Your task to perform on an android device: turn off priority inbox in the gmail app Image 0: 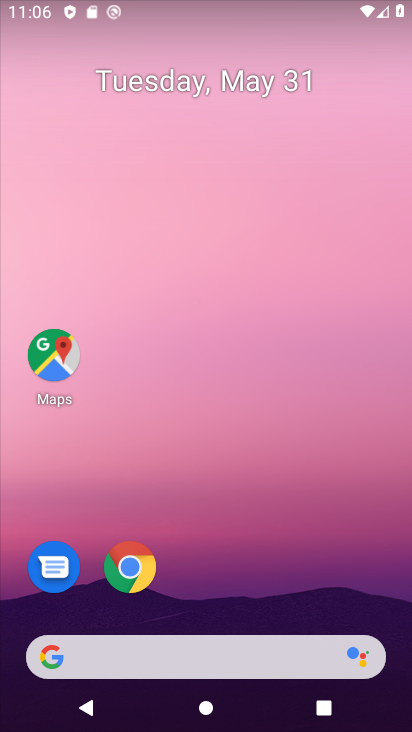
Step 0: drag from (333, 602) to (351, 124)
Your task to perform on an android device: turn off priority inbox in the gmail app Image 1: 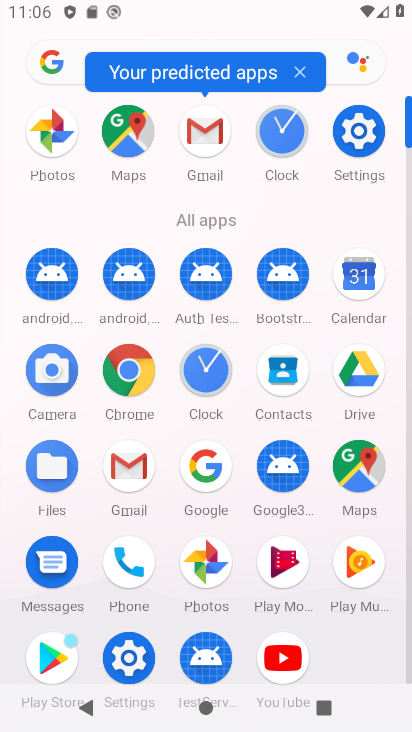
Step 1: click (139, 469)
Your task to perform on an android device: turn off priority inbox in the gmail app Image 2: 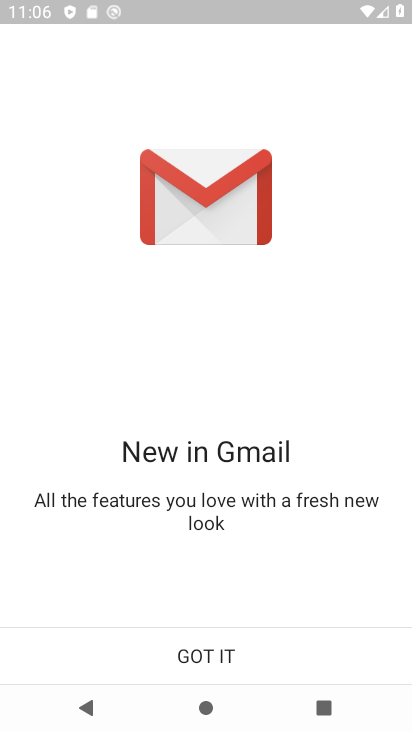
Step 2: click (201, 659)
Your task to perform on an android device: turn off priority inbox in the gmail app Image 3: 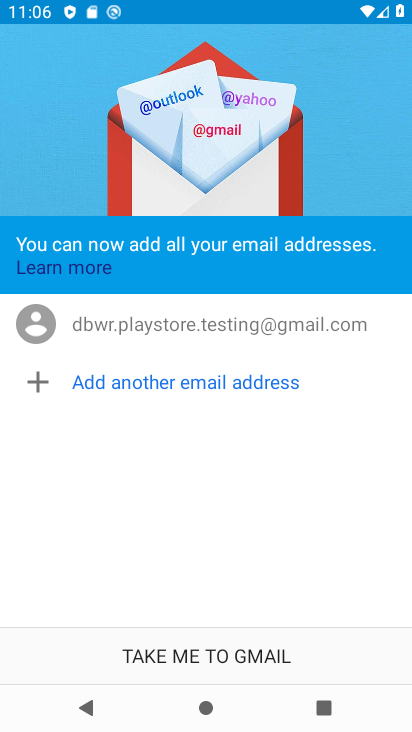
Step 3: click (231, 657)
Your task to perform on an android device: turn off priority inbox in the gmail app Image 4: 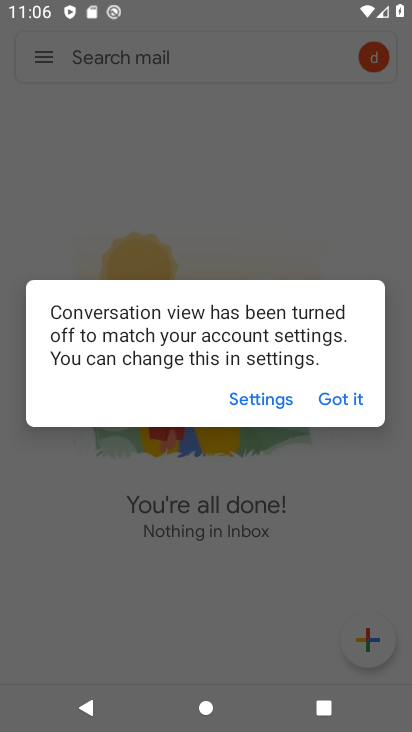
Step 4: click (351, 399)
Your task to perform on an android device: turn off priority inbox in the gmail app Image 5: 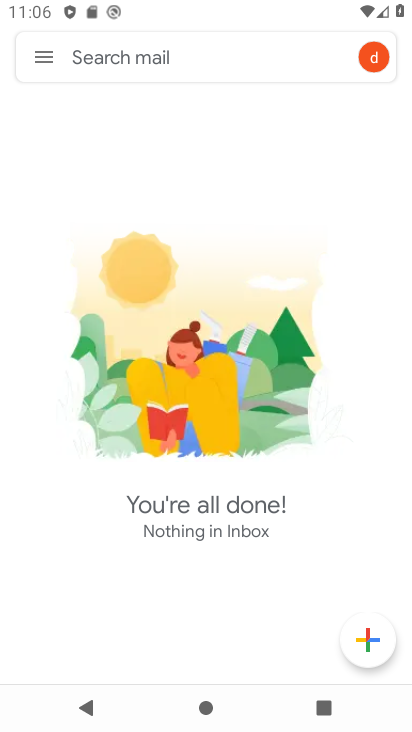
Step 5: click (35, 57)
Your task to perform on an android device: turn off priority inbox in the gmail app Image 6: 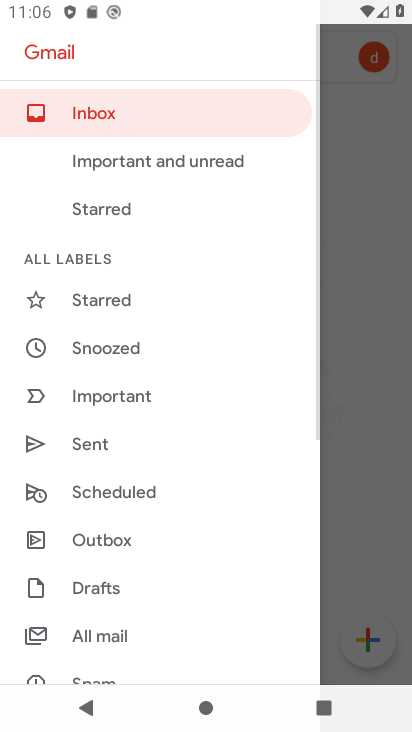
Step 6: drag from (209, 507) to (228, 363)
Your task to perform on an android device: turn off priority inbox in the gmail app Image 7: 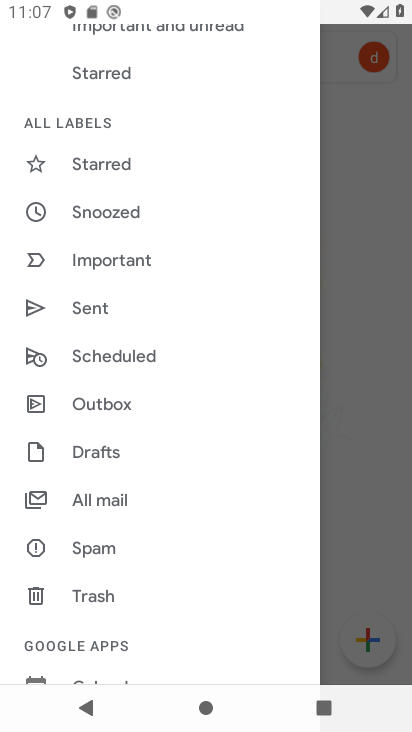
Step 7: drag from (253, 521) to (255, 343)
Your task to perform on an android device: turn off priority inbox in the gmail app Image 8: 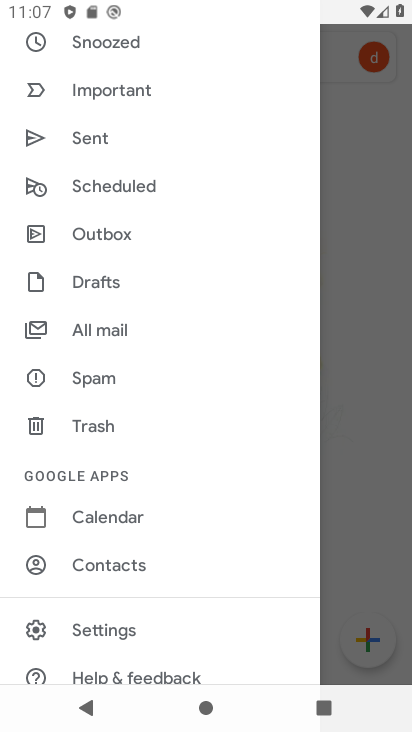
Step 8: drag from (252, 569) to (261, 368)
Your task to perform on an android device: turn off priority inbox in the gmail app Image 9: 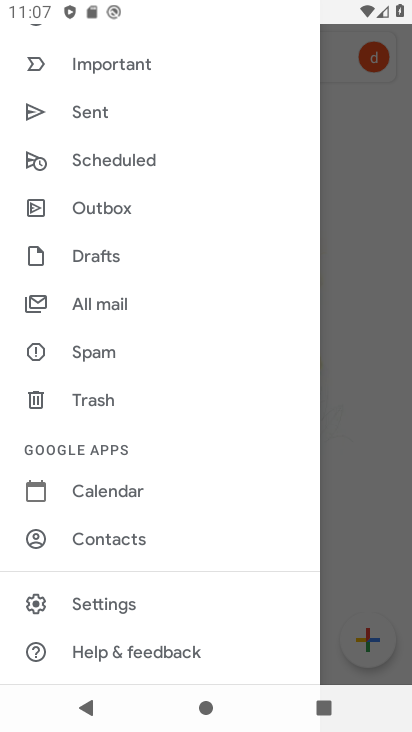
Step 9: click (142, 605)
Your task to perform on an android device: turn off priority inbox in the gmail app Image 10: 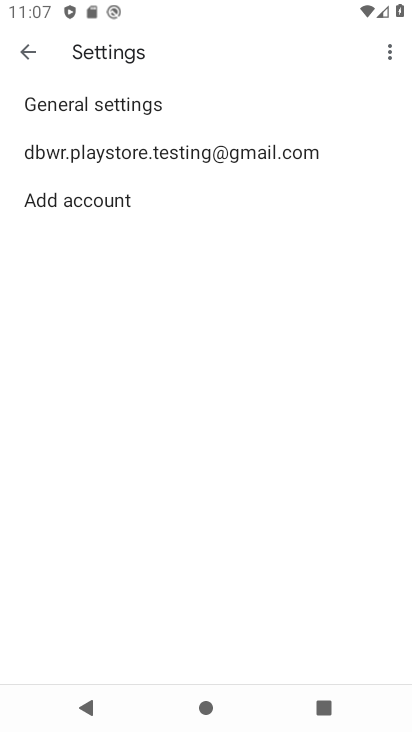
Step 10: click (231, 159)
Your task to perform on an android device: turn off priority inbox in the gmail app Image 11: 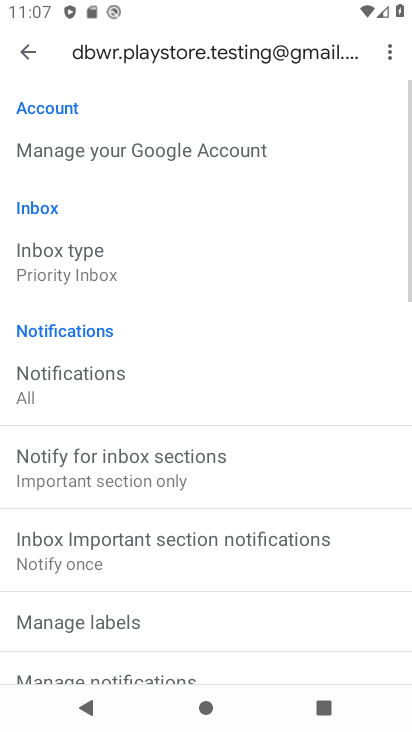
Step 11: drag from (291, 450) to (291, 296)
Your task to perform on an android device: turn off priority inbox in the gmail app Image 12: 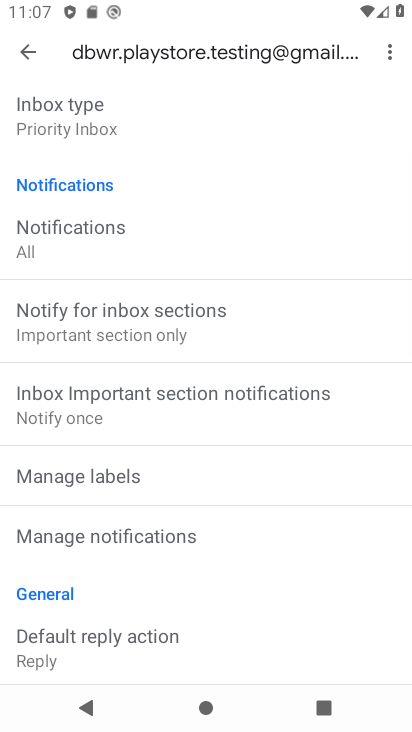
Step 12: drag from (308, 524) to (322, 313)
Your task to perform on an android device: turn off priority inbox in the gmail app Image 13: 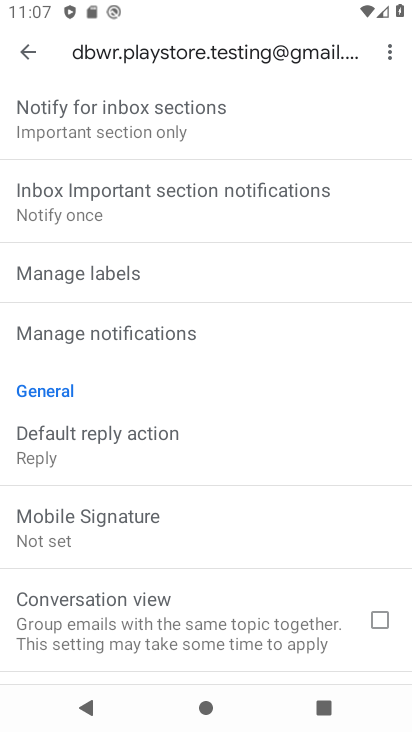
Step 13: drag from (315, 528) to (325, 305)
Your task to perform on an android device: turn off priority inbox in the gmail app Image 14: 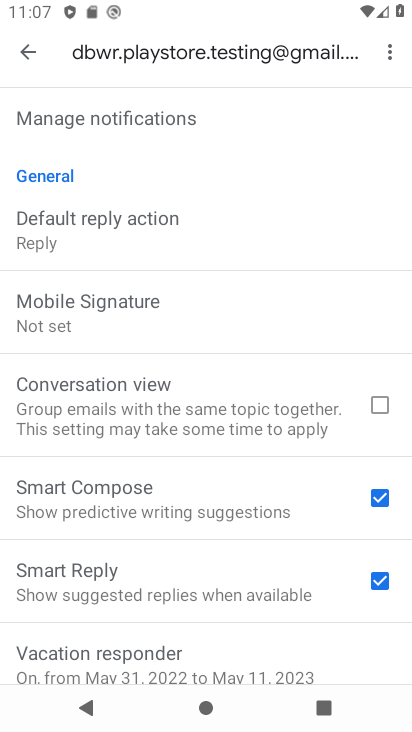
Step 14: drag from (325, 588) to (314, 315)
Your task to perform on an android device: turn off priority inbox in the gmail app Image 15: 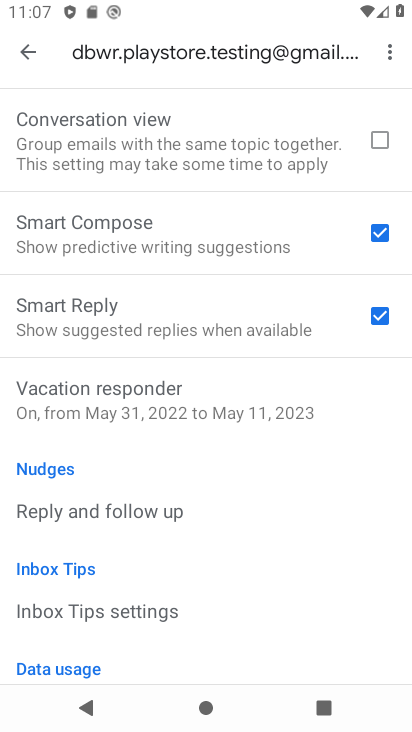
Step 15: drag from (318, 569) to (319, 299)
Your task to perform on an android device: turn off priority inbox in the gmail app Image 16: 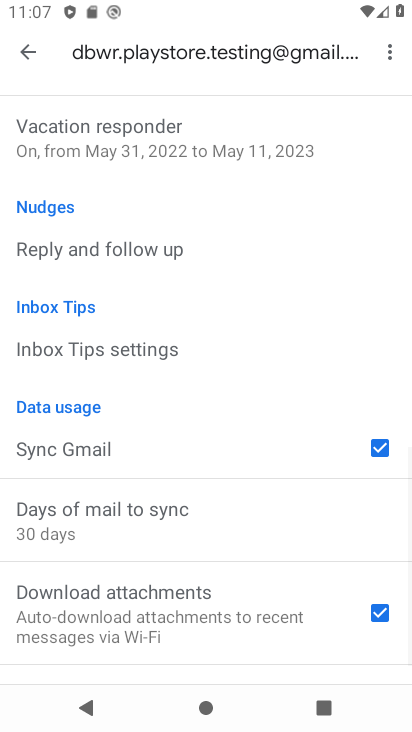
Step 16: drag from (330, 569) to (310, 325)
Your task to perform on an android device: turn off priority inbox in the gmail app Image 17: 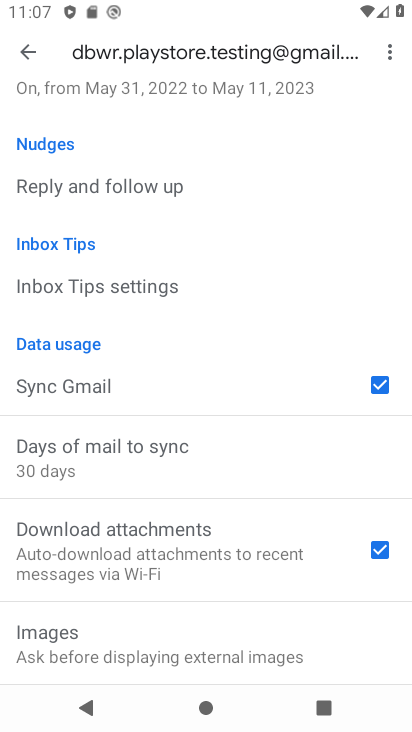
Step 17: drag from (311, 239) to (307, 433)
Your task to perform on an android device: turn off priority inbox in the gmail app Image 18: 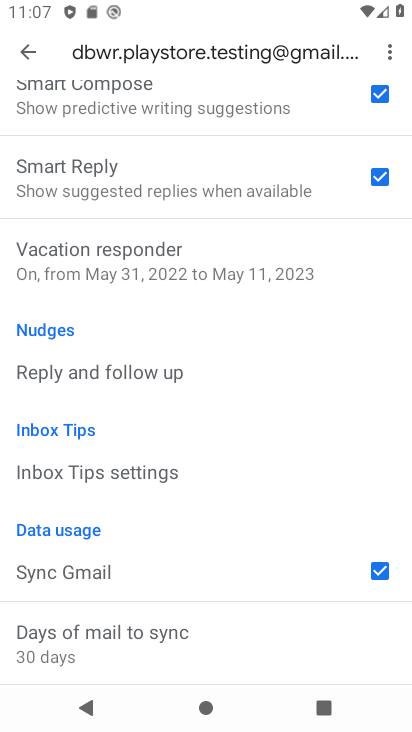
Step 18: drag from (317, 218) to (321, 437)
Your task to perform on an android device: turn off priority inbox in the gmail app Image 19: 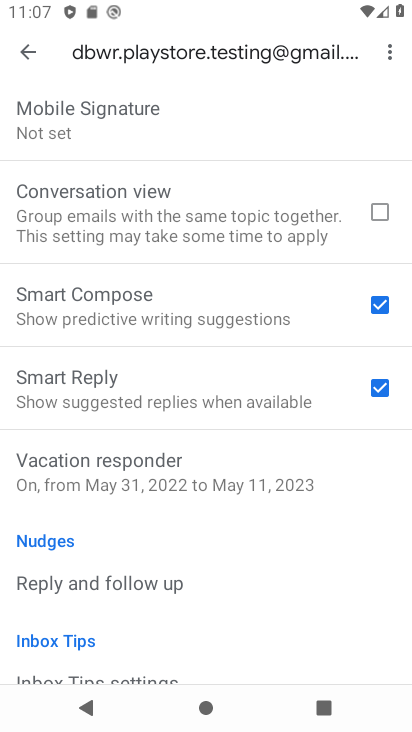
Step 19: drag from (335, 176) to (330, 368)
Your task to perform on an android device: turn off priority inbox in the gmail app Image 20: 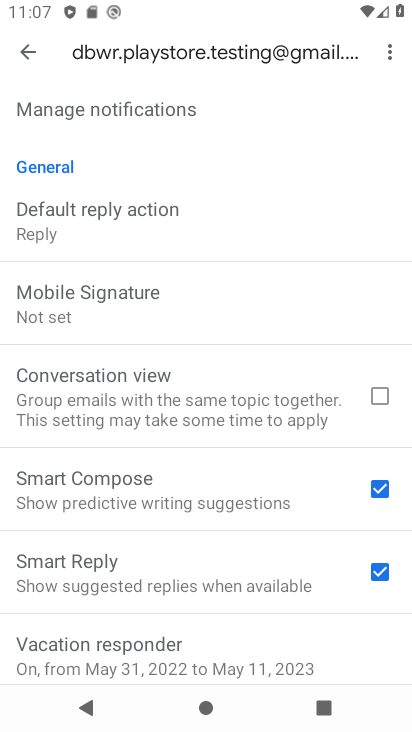
Step 20: drag from (299, 177) to (305, 337)
Your task to perform on an android device: turn off priority inbox in the gmail app Image 21: 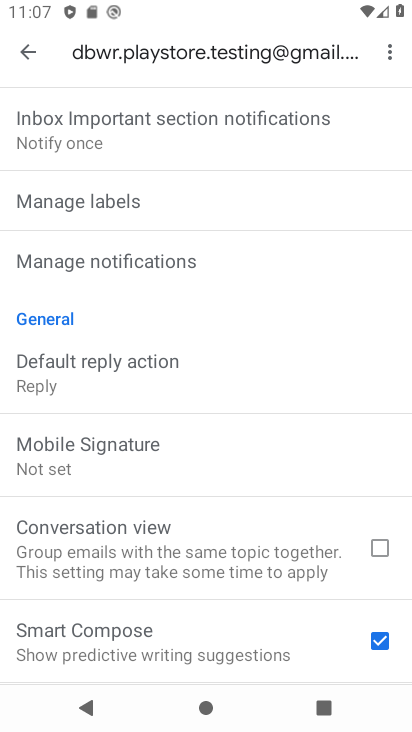
Step 21: drag from (290, 179) to (295, 299)
Your task to perform on an android device: turn off priority inbox in the gmail app Image 22: 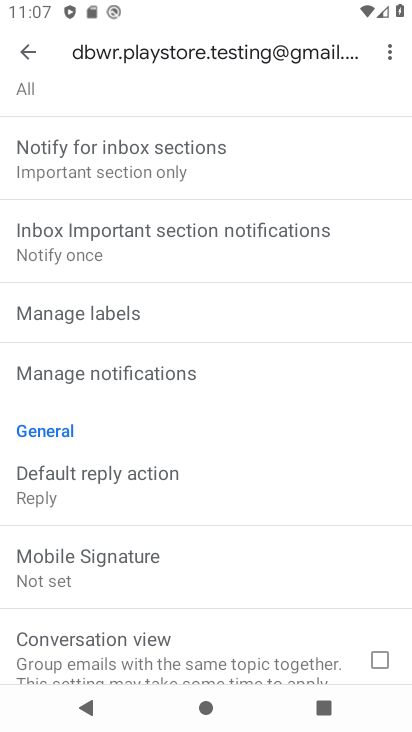
Step 22: drag from (297, 145) to (295, 275)
Your task to perform on an android device: turn off priority inbox in the gmail app Image 23: 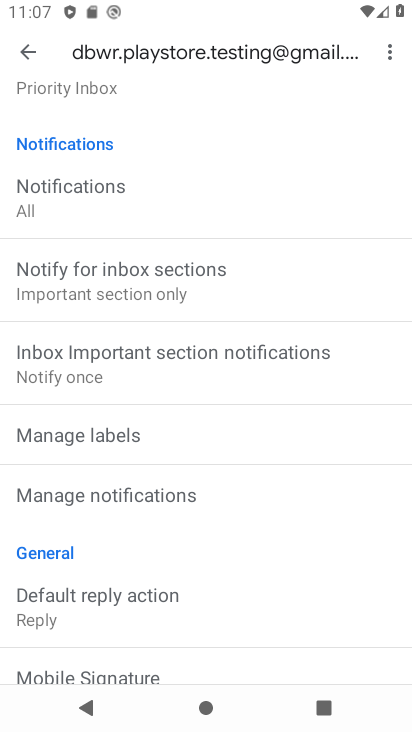
Step 23: drag from (277, 183) to (278, 347)
Your task to perform on an android device: turn off priority inbox in the gmail app Image 24: 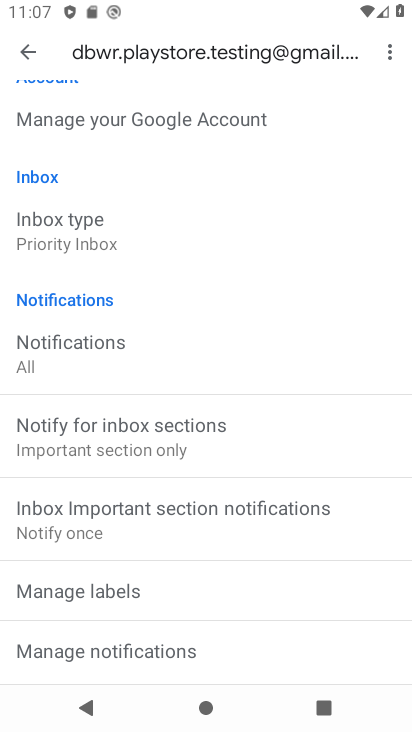
Step 24: click (83, 234)
Your task to perform on an android device: turn off priority inbox in the gmail app Image 25: 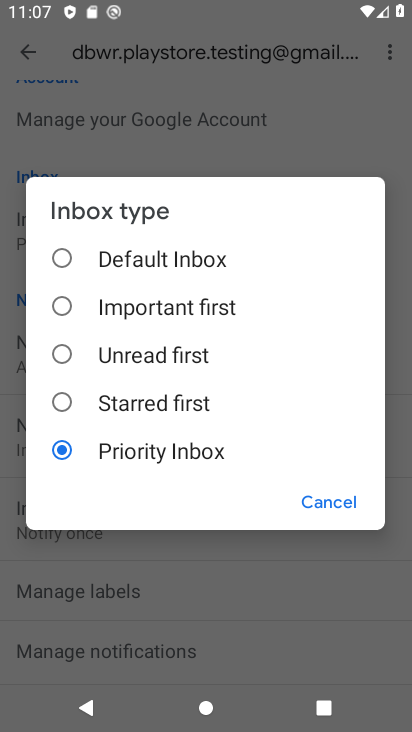
Step 25: click (57, 259)
Your task to perform on an android device: turn off priority inbox in the gmail app Image 26: 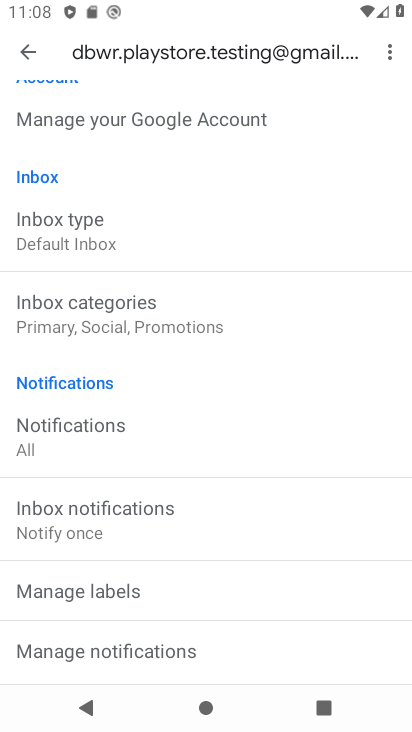
Step 26: task complete